Your task to perform on an android device: turn off notifications in google photos Image 0: 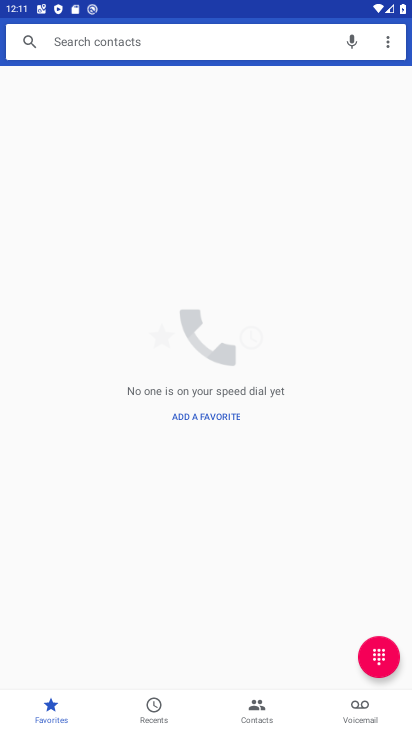
Step 0: press home button
Your task to perform on an android device: turn off notifications in google photos Image 1: 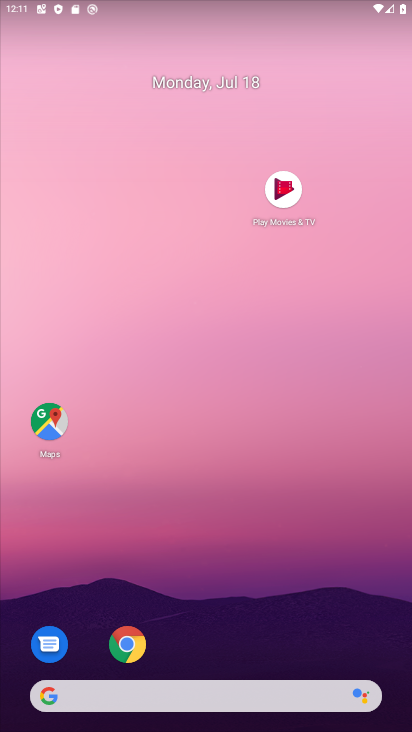
Step 1: drag from (310, 637) to (177, 143)
Your task to perform on an android device: turn off notifications in google photos Image 2: 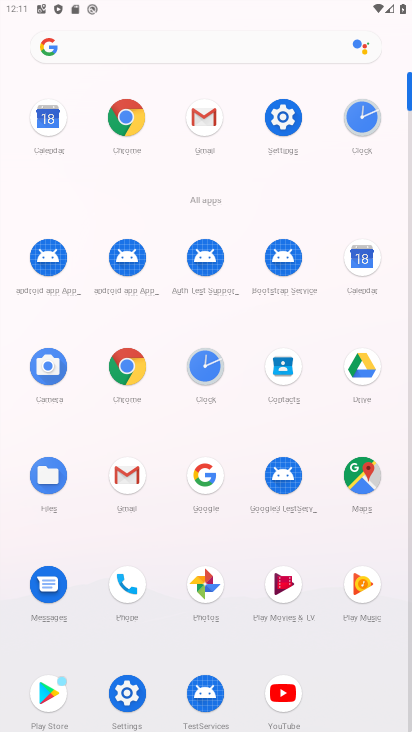
Step 2: click (205, 581)
Your task to perform on an android device: turn off notifications in google photos Image 3: 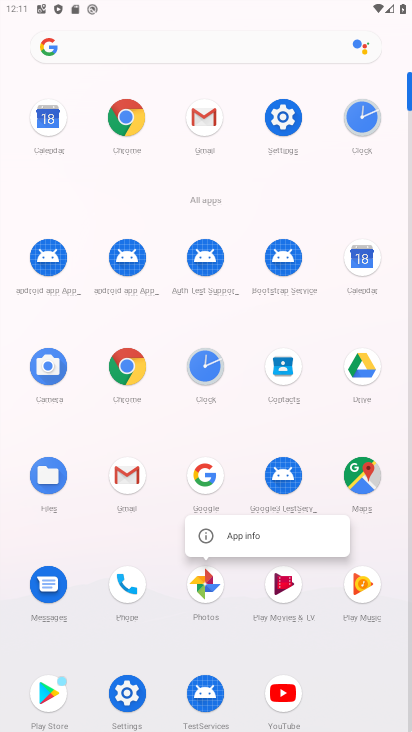
Step 3: click (213, 578)
Your task to perform on an android device: turn off notifications in google photos Image 4: 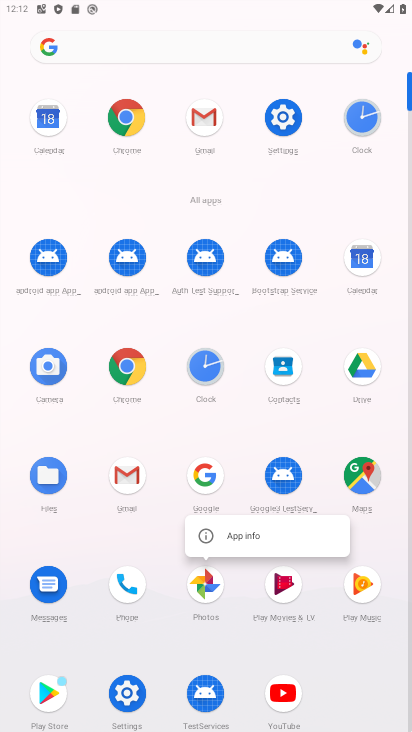
Step 4: click (213, 584)
Your task to perform on an android device: turn off notifications in google photos Image 5: 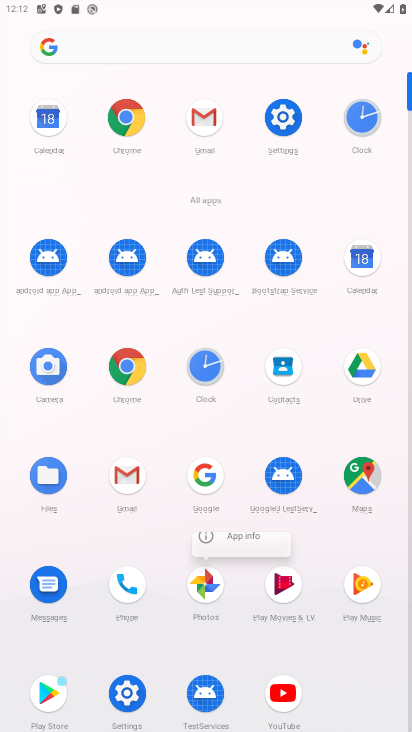
Step 5: click (213, 584)
Your task to perform on an android device: turn off notifications in google photos Image 6: 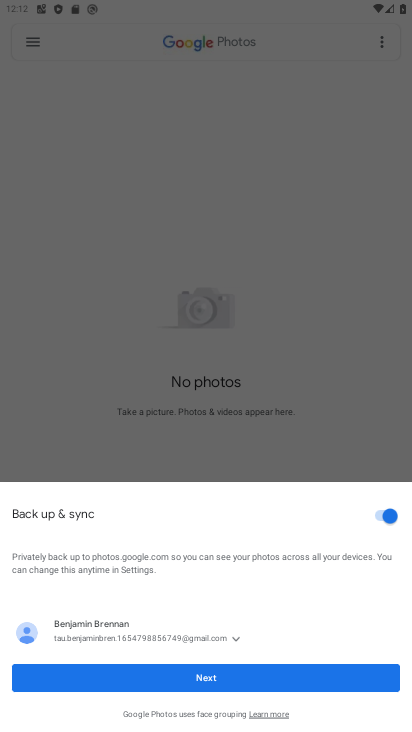
Step 6: click (193, 680)
Your task to perform on an android device: turn off notifications in google photos Image 7: 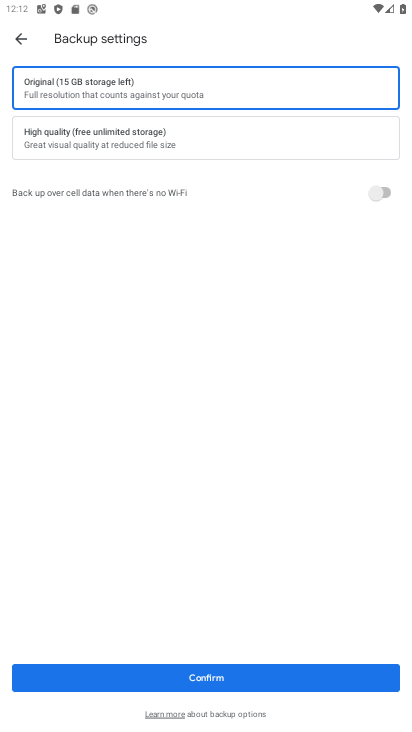
Step 7: click (15, 39)
Your task to perform on an android device: turn off notifications in google photos Image 8: 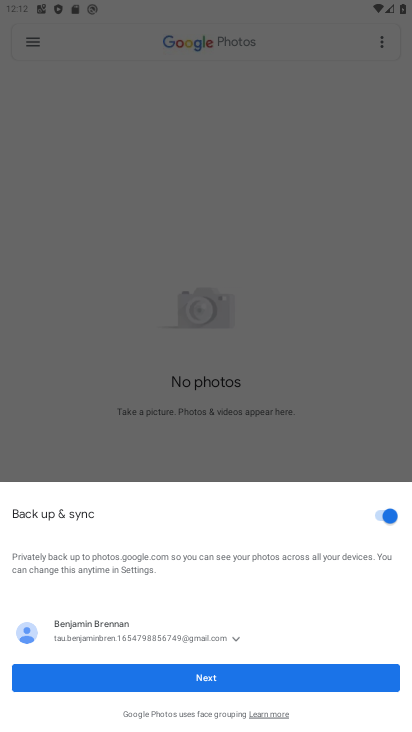
Step 8: click (15, 39)
Your task to perform on an android device: turn off notifications in google photos Image 9: 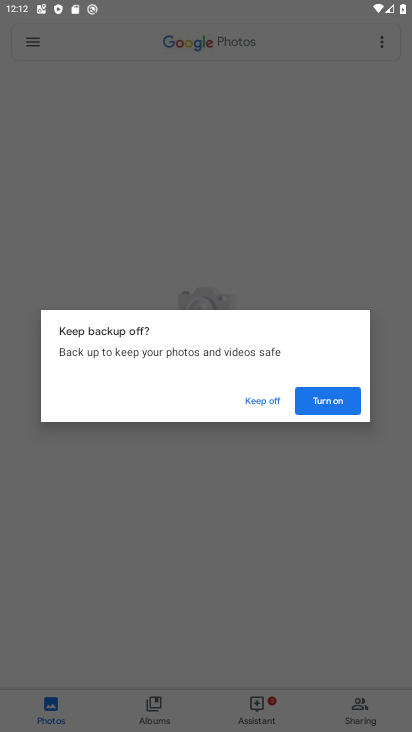
Step 9: click (20, 34)
Your task to perform on an android device: turn off notifications in google photos Image 10: 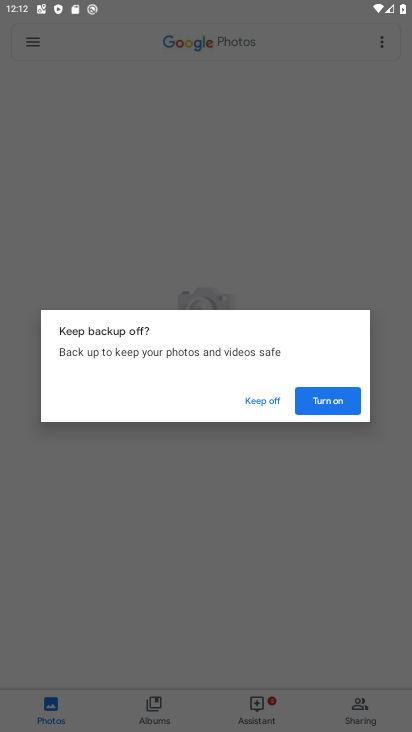
Step 10: click (273, 402)
Your task to perform on an android device: turn off notifications in google photos Image 11: 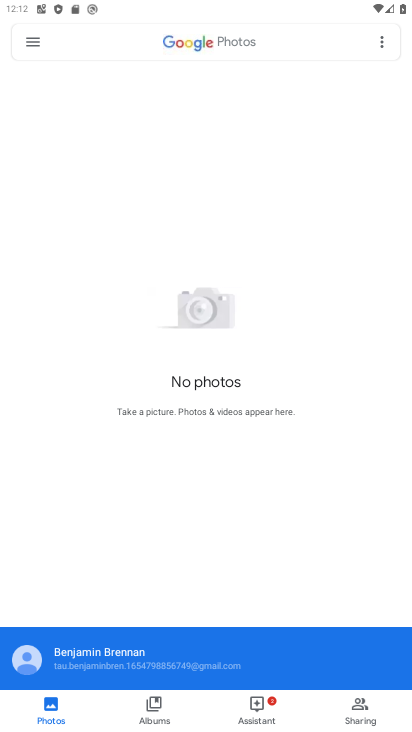
Step 11: click (32, 45)
Your task to perform on an android device: turn off notifications in google photos Image 12: 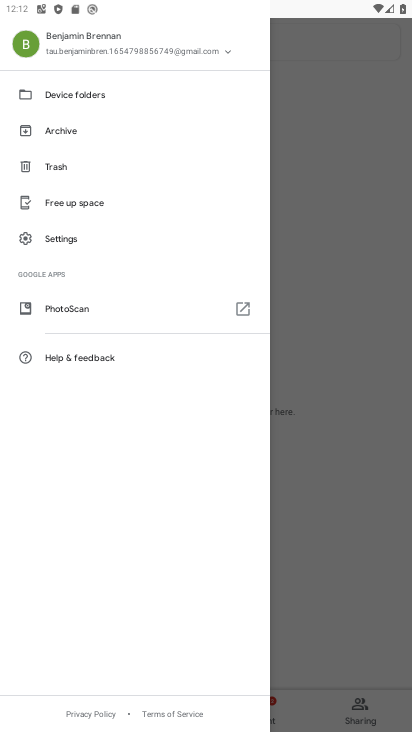
Step 12: click (54, 248)
Your task to perform on an android device: turn off notifications in google photos Image 13: 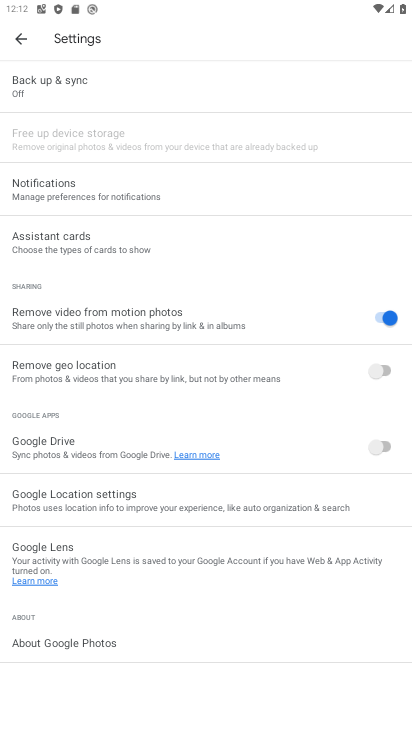
Step 13: click (79, 199)
Your task to perform on an android device: turn off notifications in google photos Image 14: 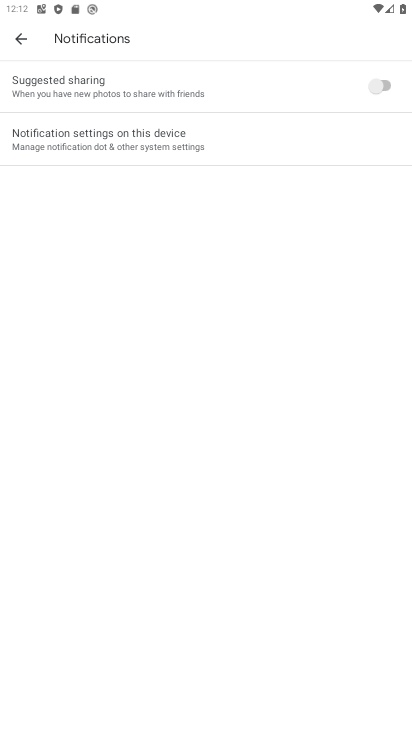
Step 14: click (133, 130)
Your task to perform on an android device: turn off notifications in google photos Image 15: 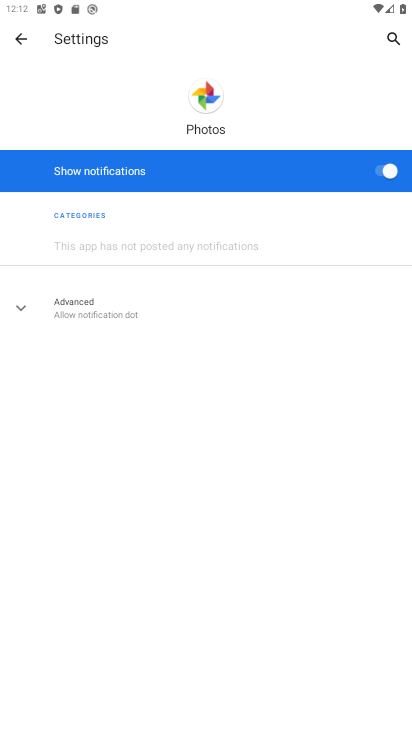
Step 15: click (370, 161)
Your task to perform on an android device: turn off notifications in google photos Image 16: 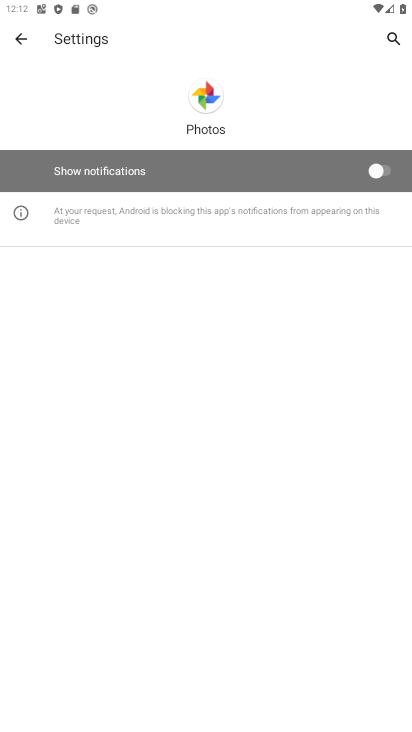
Step 16: task complete